Your task to perform on an android device: Search for flights from NYC to Mexico city Image 0: 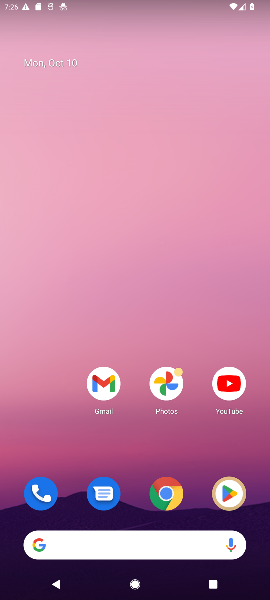
Step 0: click (154, 84)
Your task to perform on an android device: Search for flights from NYC to Mexico city Image 1: 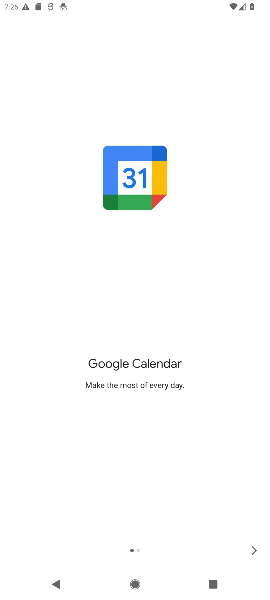
Step 1: click (130, 541)
Your task to perform on an android device: Search for flights from NYC to Mexico city Image 2: 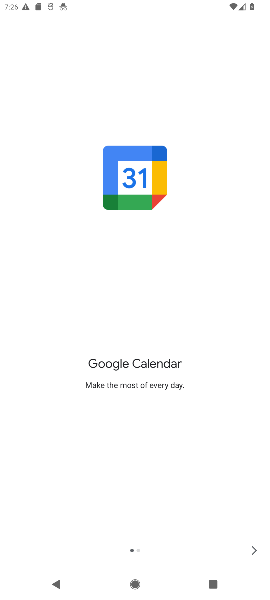
Step 2: press home button
Your task to perform on an android device: Search for flights from NYC to Mexico city Image 3: 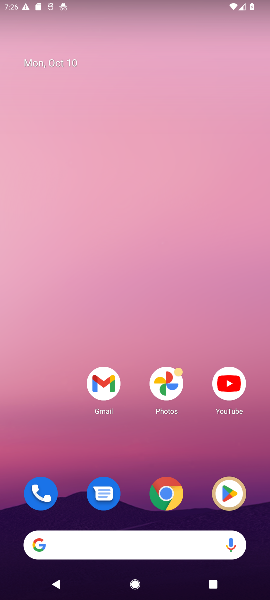
Step 3: click (135, 535)
Your task to perform on an android device: Search for flights from NYC to Mexico city Image 4: 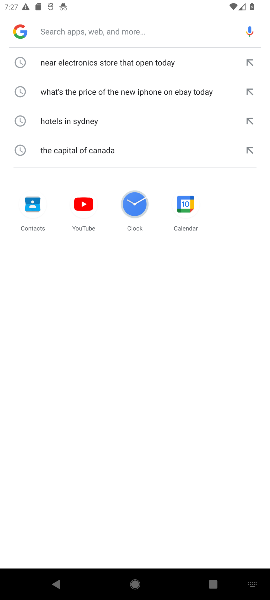
Step 4: type "flights from NYC to Mexico city"
Your task to perform on an android device: Search for flights from NYC to Mexico city Image 5: 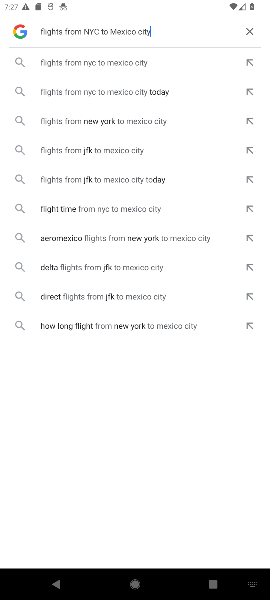
Step 5: click (76, 64)
Your task to perform on an android device: Search for flights from NYC to Mexico city Image 6: 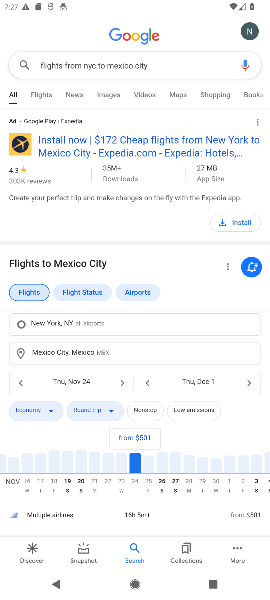
Step 6: task complete